Your task to perform on an android device: Open Wikipedia Image 0: 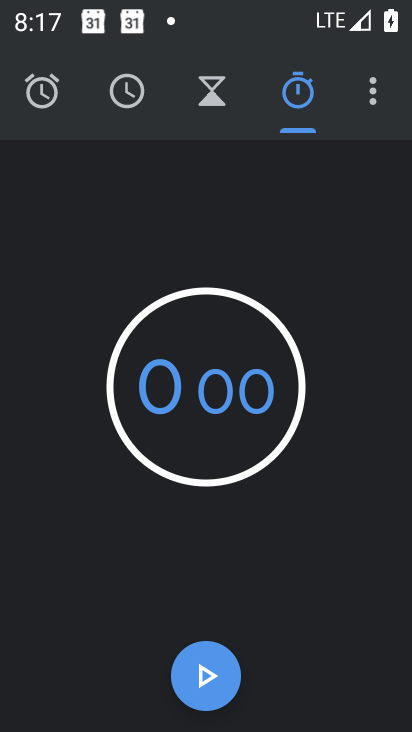
Step 0: press back button
Your task to perform on an android device: Open Wikipedia Image 1: 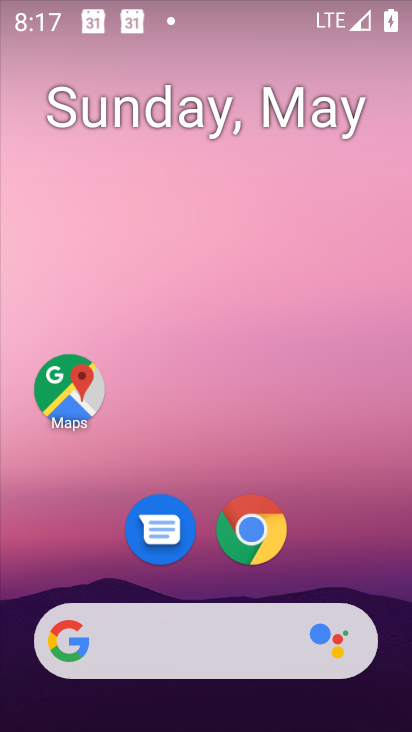
Step 1: click (246, 525)
Your task to perform on an android device: Open Wikipedia Image 2: 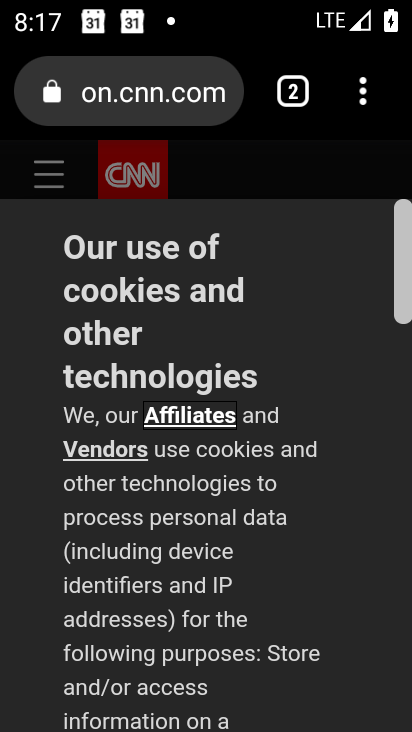
Step 2: click (293, 91)
Your task to perform on an android device: Open Wikipedia Image 3: 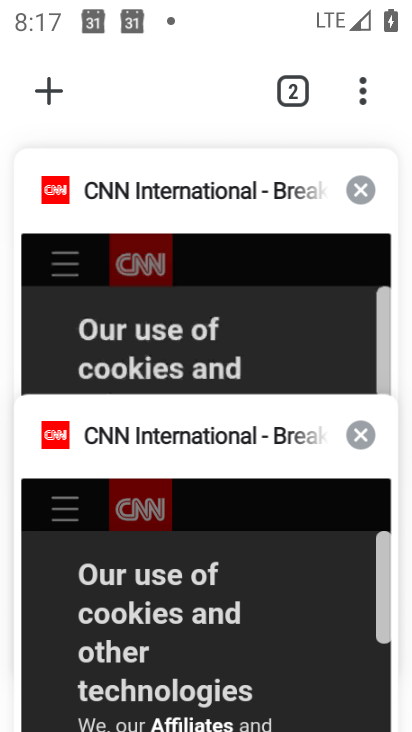
Step 3: click (41, 96)
Your task to perform on an android device: Open Wikipedia Image 4: 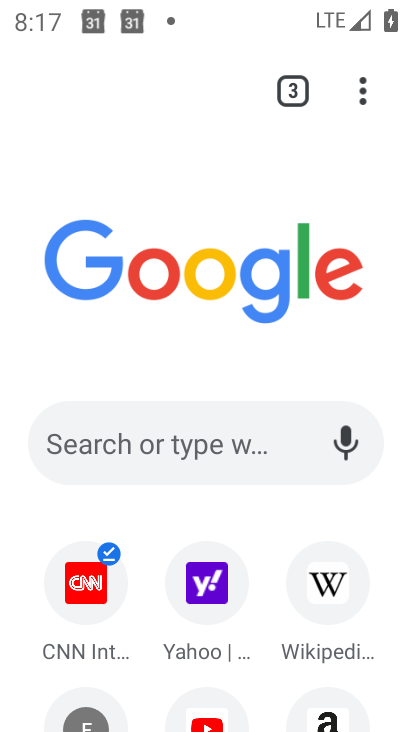
Step 4: click (312, 596)
Your task to perform on an android device: Open Wikipedia Image 5: 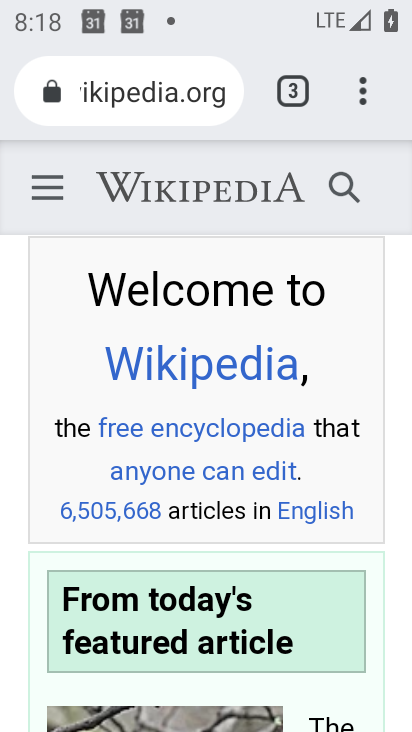
Step 5: task complete